Your task to perform on an android device: Search for seafood restaurants on Google Maps Image 0: 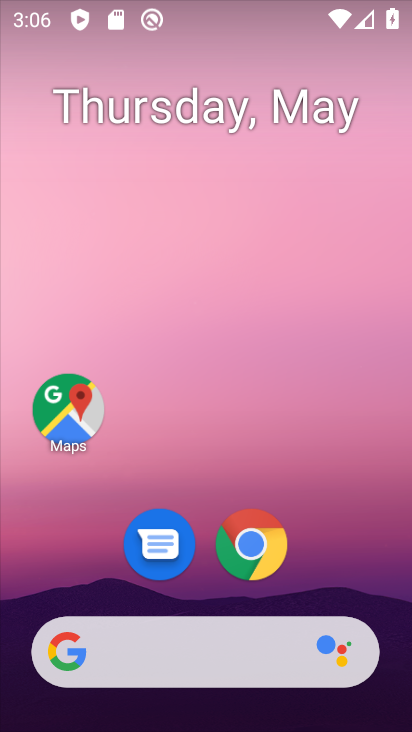
Step 0: click (69, 419)
Your task to perform on an android device: Search for seafood restaurants on Google Maps Image 1: 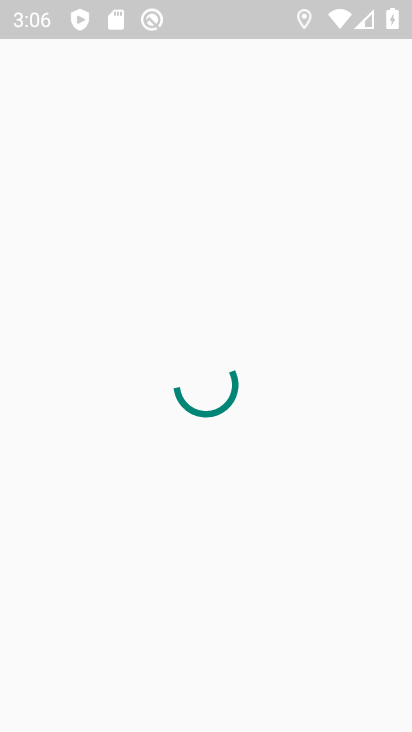
Step 1: click (51, 97)
Your task to perform on an android device: Search for seafood restaurants on Google Maps Image 2: 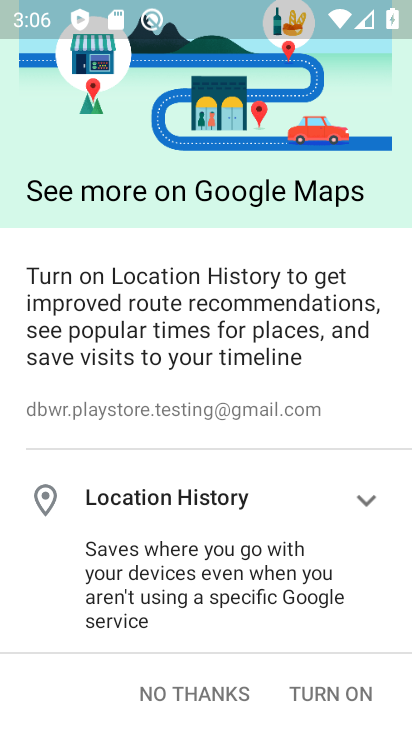
Step 2: click (203, 696)
Your task to perform on an android device: Search for seafood restaurants on Google Maps Image 3: 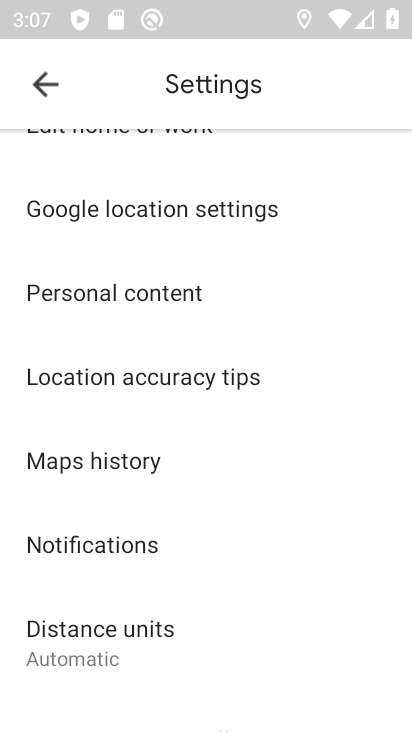
Step 3: click (49, 80)
Your task to perform on an android device: Search for seafood restaurants on Google Maps Image 4: 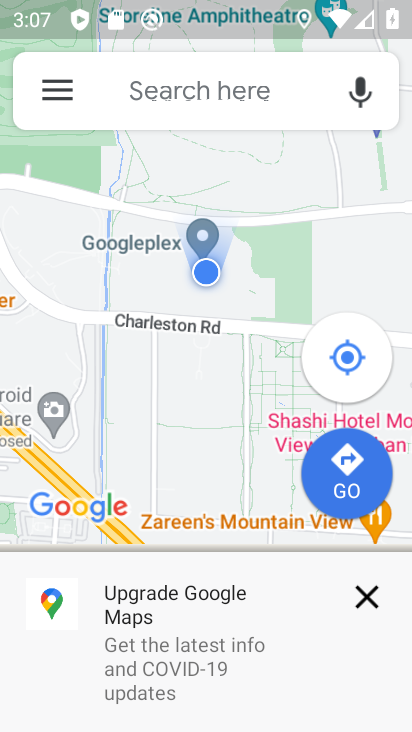
Step 4: click (169, 84)
Your task to perform on an android device: Search for seafood restaurants on Google Maps Image 5: 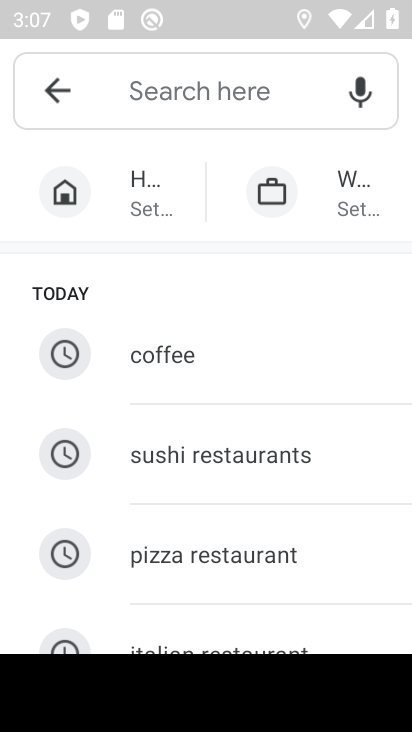
Step 5: type "seafood restaurants"
Your task to perform on an android device: Search for seafood restaurants on Google Maps Image 6: 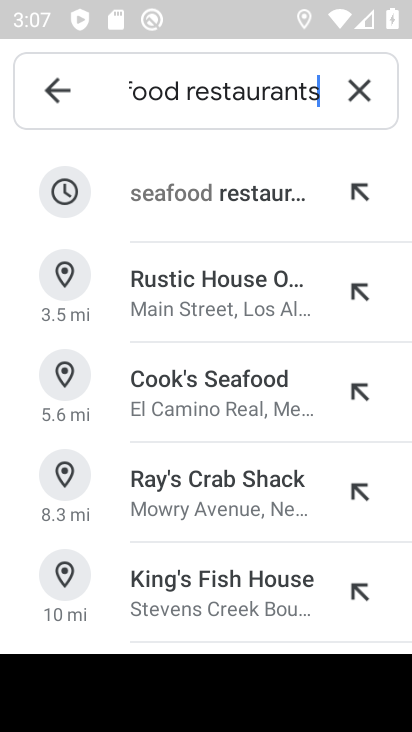
Step 6: click (217, 218)
Your task to perform on an android device: Search for seafood restaurants on Google Maps Image 7: 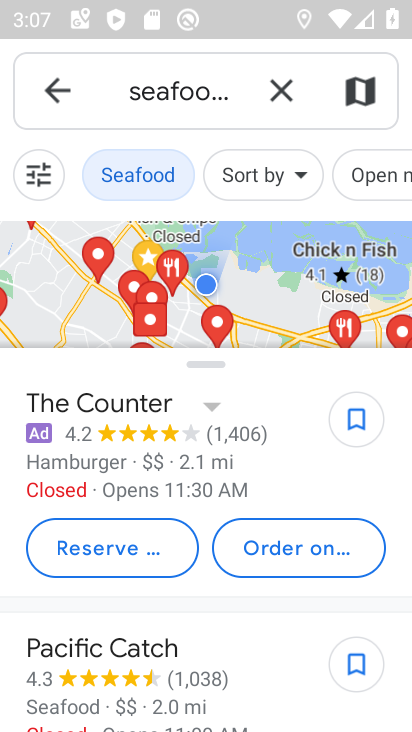
Step 7: task complete